Your task to perform on an android device: turn on the 24-hour format for clock Image 0: 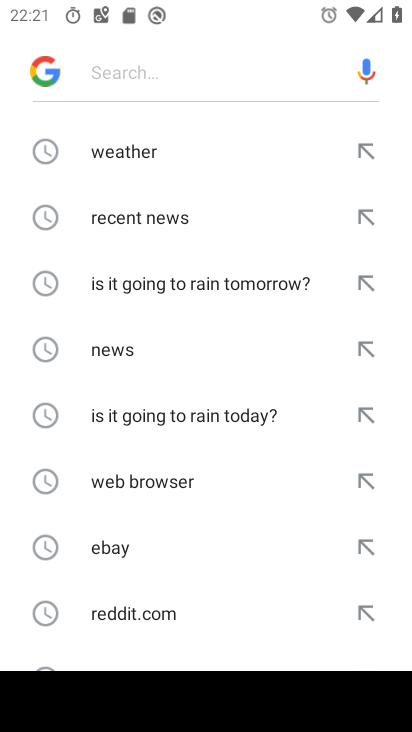
Step 0: press home button
Your task to perform on an android device: turn on the 24-hour format for clock Image 1: 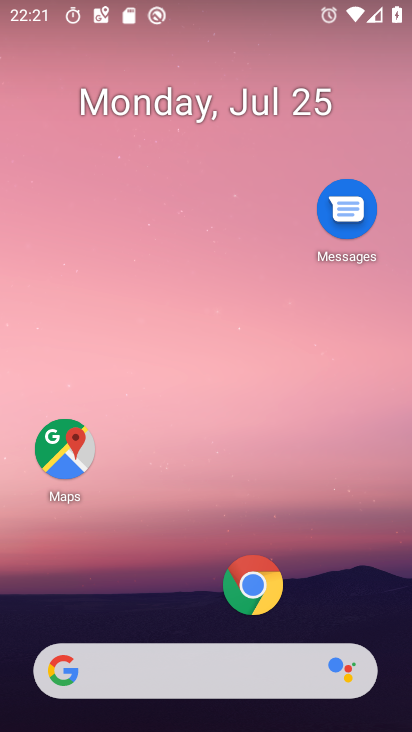
Step 1: drag from (204, 664) to (270, 115)
Your task to perform on an android device: turn on the 24-hour format for clock Image 2: 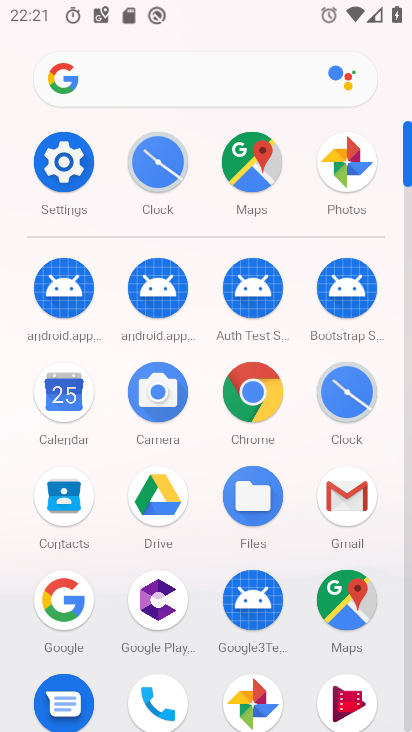
Step 2: click (354, 399)
Your task to perform on an android device: turn on the 24-hour format for clock Image 3: 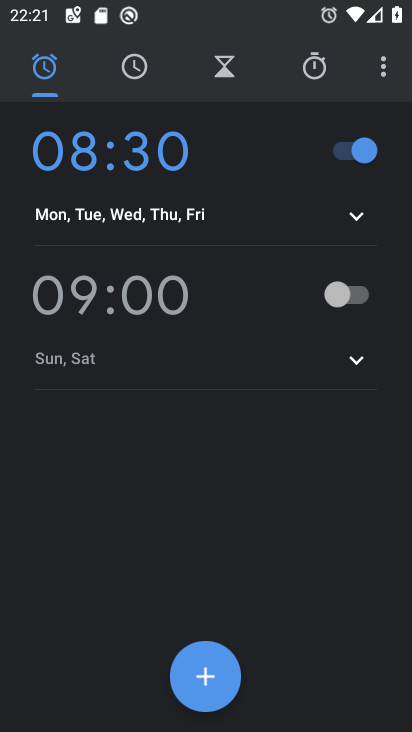
Step 3: click (382, 68)
Your task to perform on an android device: turn on the 24-hour format for clock Image 4: 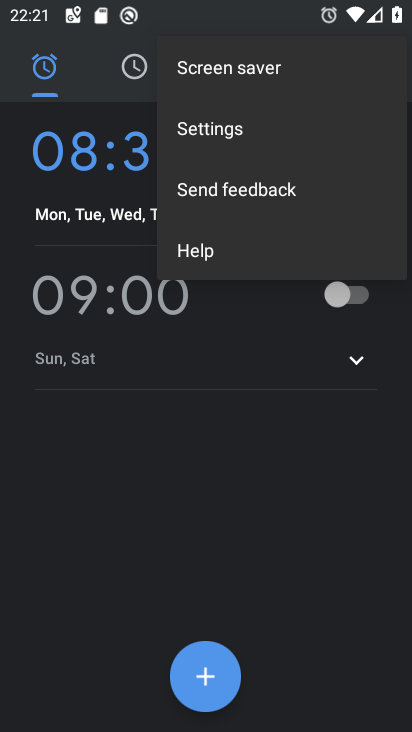
Step 4: click (219, 125)
Your task to perform on an android device: turn on the 24-hour format for clock Image 5: 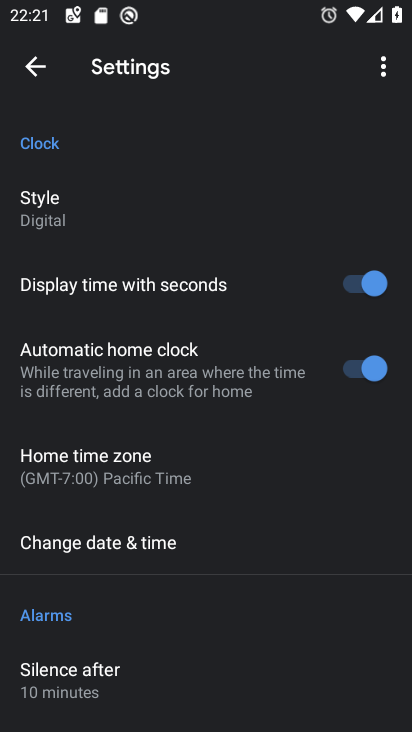
Step 5: drag from (214, 601) to (287, 137)
Your task to perform on an android device: turn on the 24-hour format for clock Image 6: 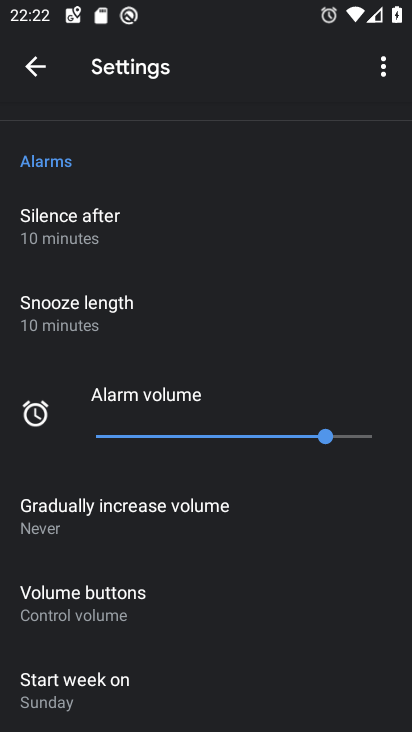
Step 6: drag from (272, 224) to (237, 450)
Your task to perform on an android device: turn on the 24-hour format for clock Image 7: 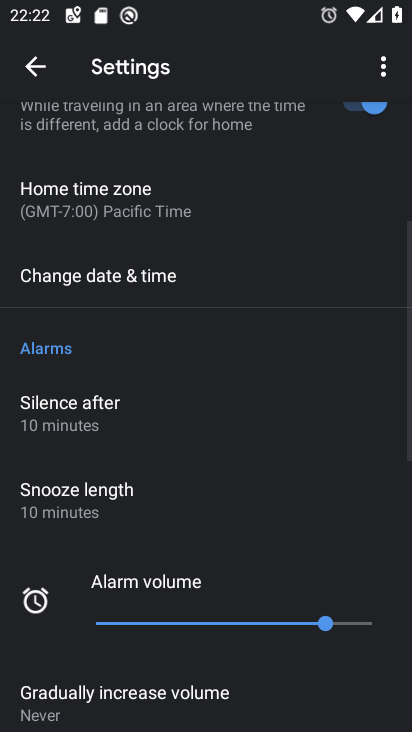
Step 7: click (153, 286)
Your task to perform on an android device: turn on the 24-hour format for clock Image 8: 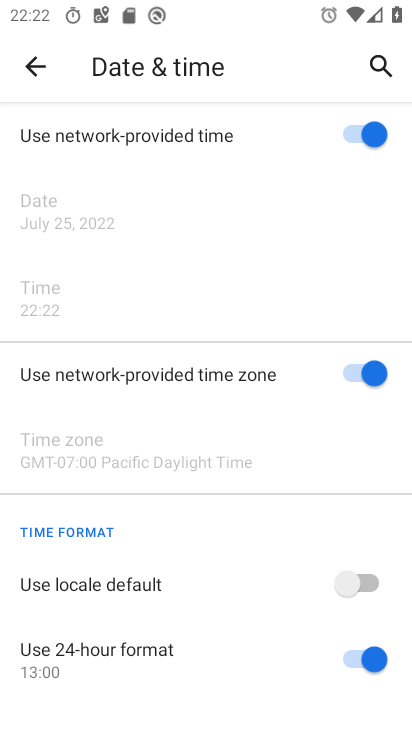
Step 8: task complete